Your task to perform on an android device: change notifications settings Image 0: 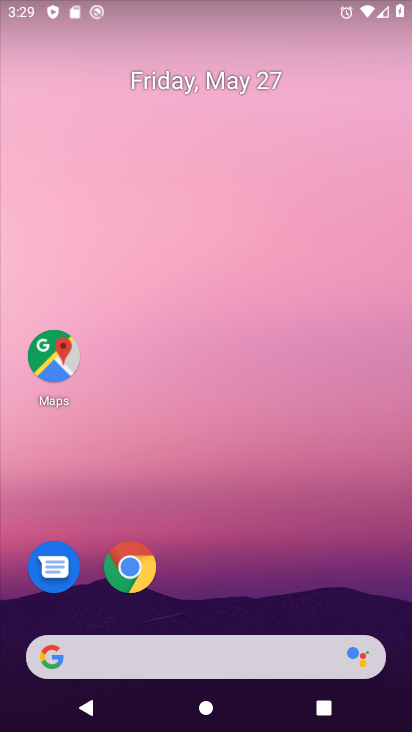
Step 0: drag from (374, 584) to (324, 137)
Your task to perform on an android device: change notifications settings Image 1: 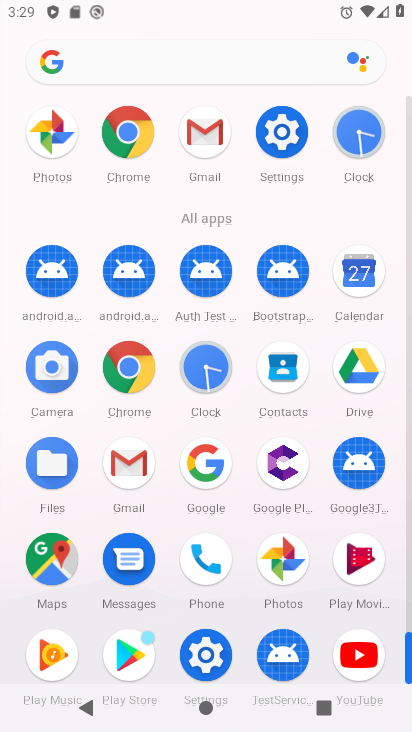
Step 1: click (207, 653)
Your task to perform on an android device: change notifications settings Image 2: 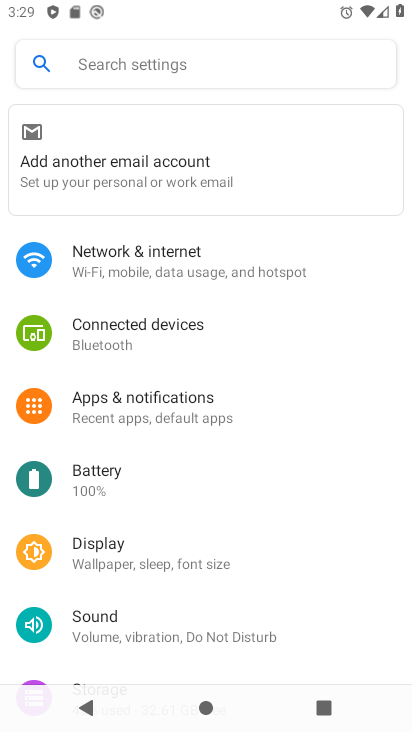
Step 2: click (118, 389)
Your task to perform on an android device: change notifications settings Image 3: 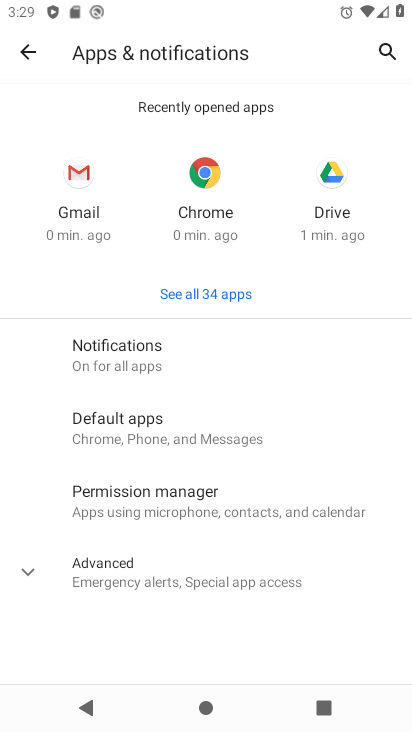
Step 3: click (138, 350)
Your task to perform on an android device: change notifications settings Image 4: 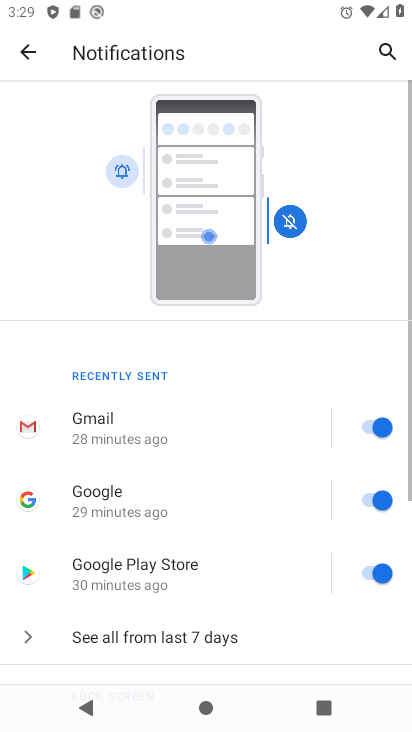
Step 4: drag from (309, 588) to (223, 142)
Your task to perform on an android device: change notifications settings Image 5: 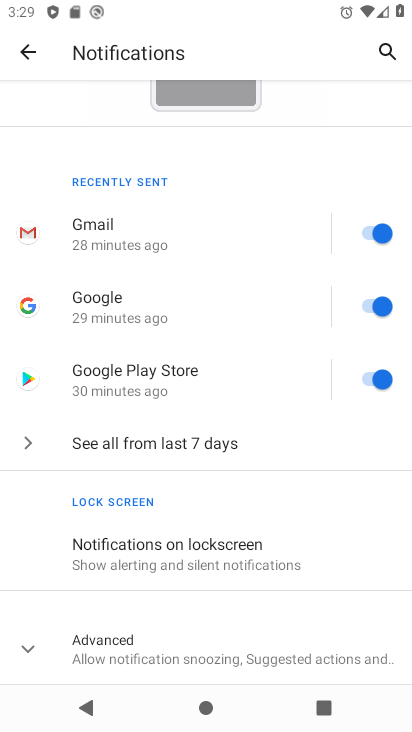
Step 5: click (43, 663)
Your task to perform on an android device: change notifications settings Image 6: 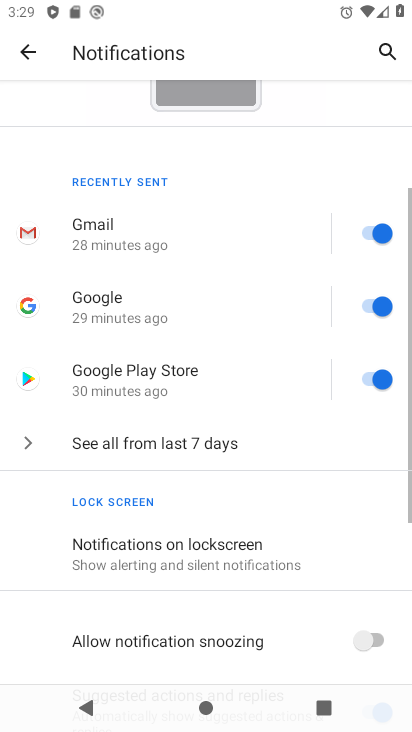
Step 6: task complete